Your task to perform on an android device: Open internet settings Image 0: 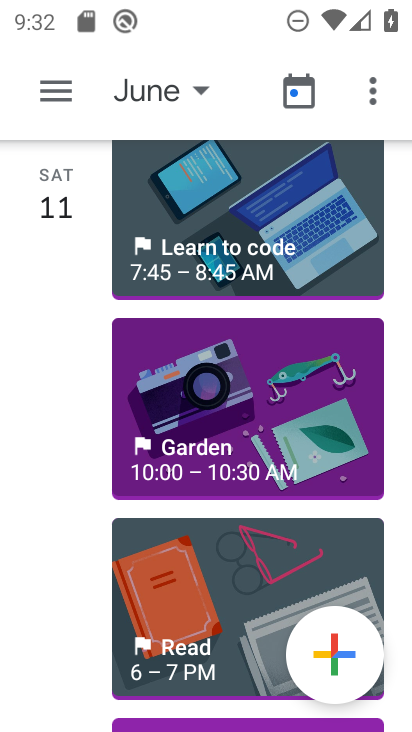
Step 0: press home button
Your task to perform on an android device: Open internet settings Image 1: 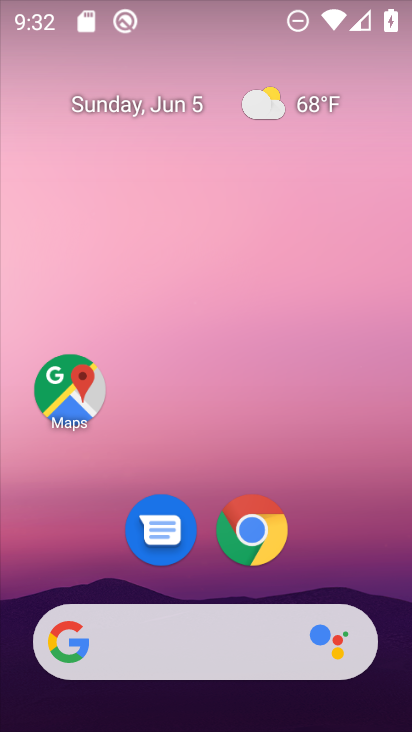
Step 1: drag from (398, 612) to (302, 0)
Your task to perform on an android device: Open internet settings Image 2: 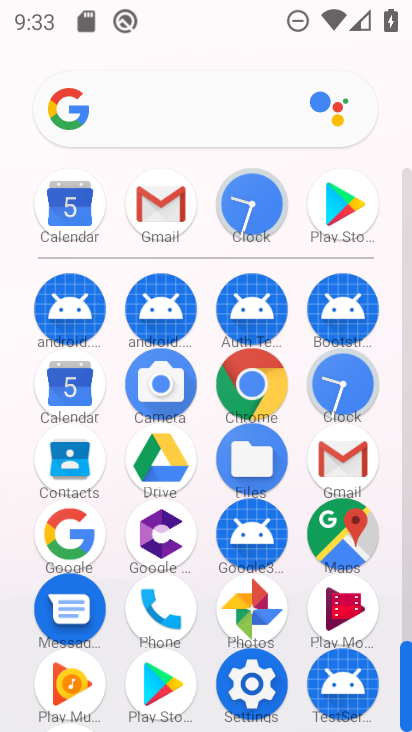
Step 2: click (248, 681)
Your task to perform on an android device: Open internet settings Image 3: 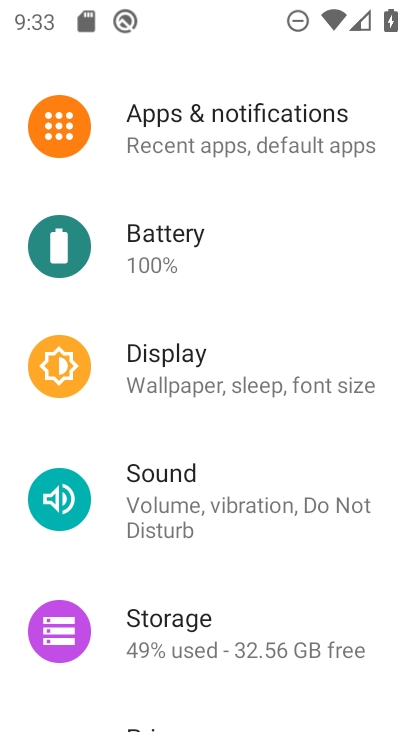
Step 3: drag from (272, 303) to (252, 567)
Your task to perform on an android device: Open internet settings Image 4: 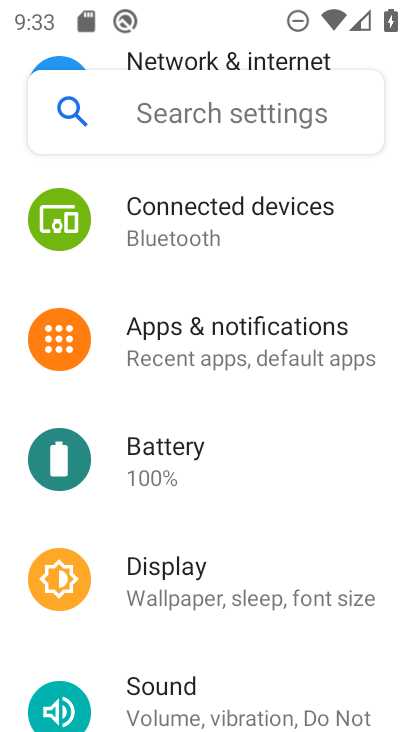
Step 4: drag from (300, 207) to (251, 598)
Your task to perform on an android device: Open internet settings Image 5: 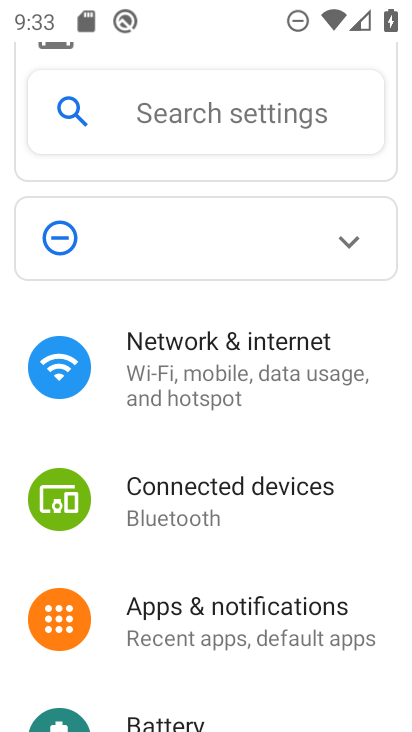
Step 5: click (179, 360)
Your task to perform on an android device: Open internet settings Image 6: 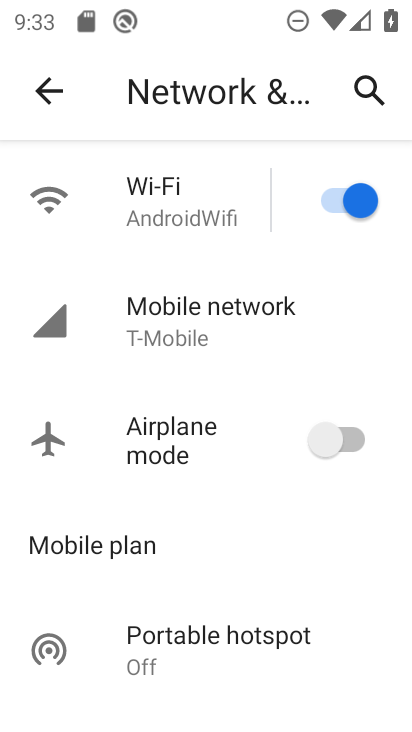
Step 6: click (167, 321)
Your task to perform on an android device: Open internet settings Image 7: 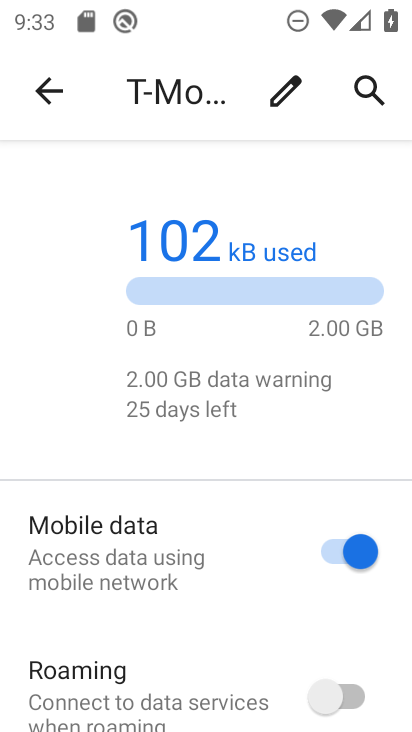
Step 7: task complete